Your task to perform on an android device: Go to Yahoo.com Image 0: 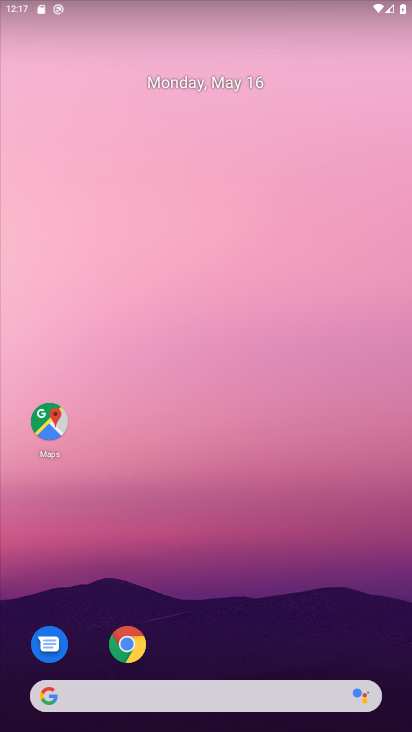
Step 0: click (141, 642)
Your task to perform on an android device: Go to Yahoo.com Image 1: 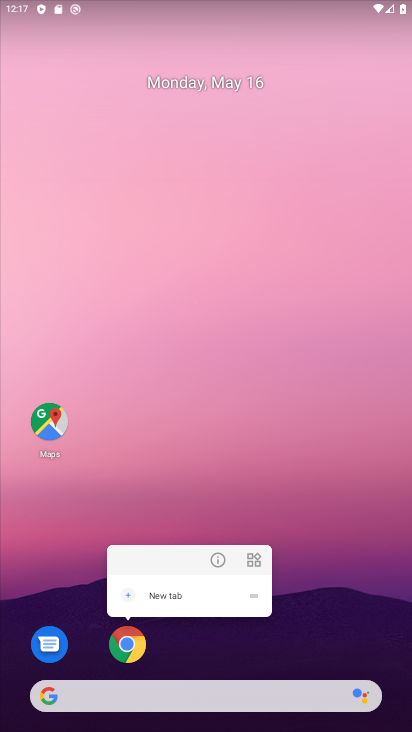
Step 1: click (118, 660)
Your task to perform on an android device: Go to Yahoo.com Image 2: 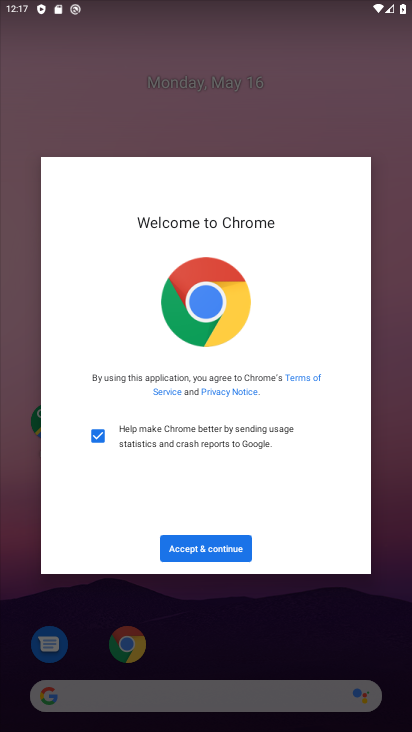
Step 2: click (216, 555)
Your task to perform on an android device: Go to Yahoo.com Image 3: 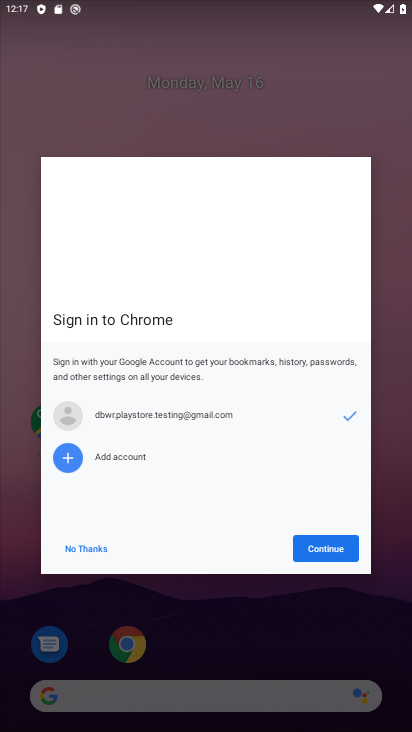
Step 3: click (321, 543)
Your task to perform on an android device: Go to Yahoo.com Image 4: 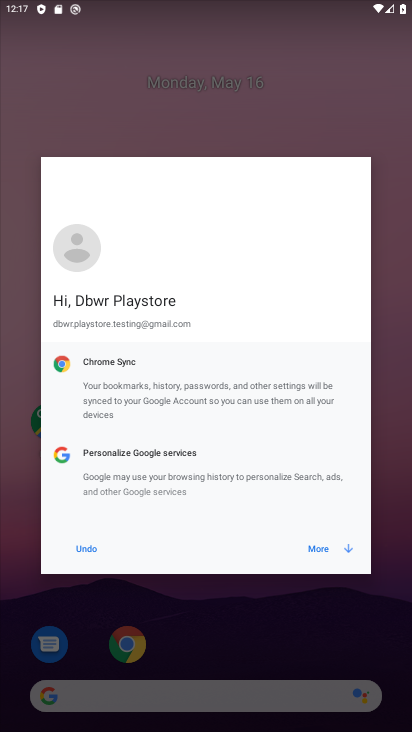
Step 4: click (321, 543)
Your task to perform on an android device: Go to Yahoo.com Image 5: 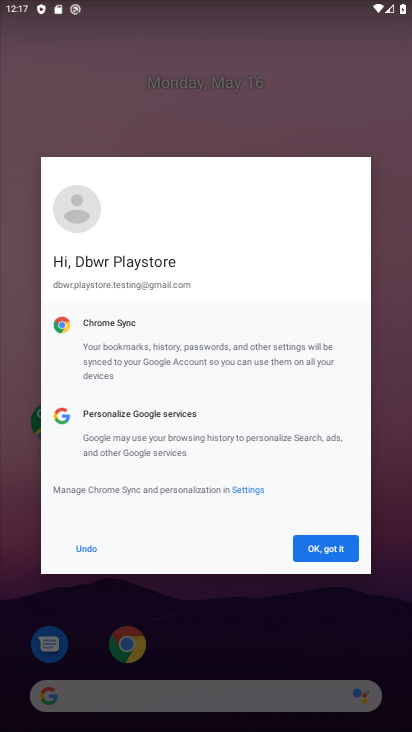
Step 5: click (321, 543)
Your task to perform on an android device: Go to Yahoo.com Image 6: 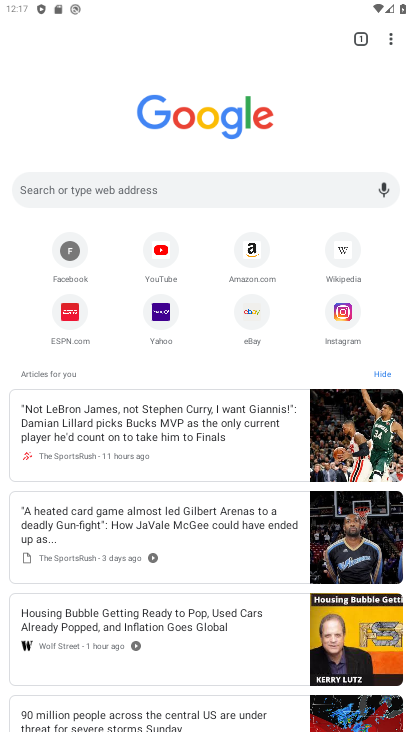
Step 6: click (164, 317)
Your task to perform on an android device: Go to Yahoo.com Image 7: 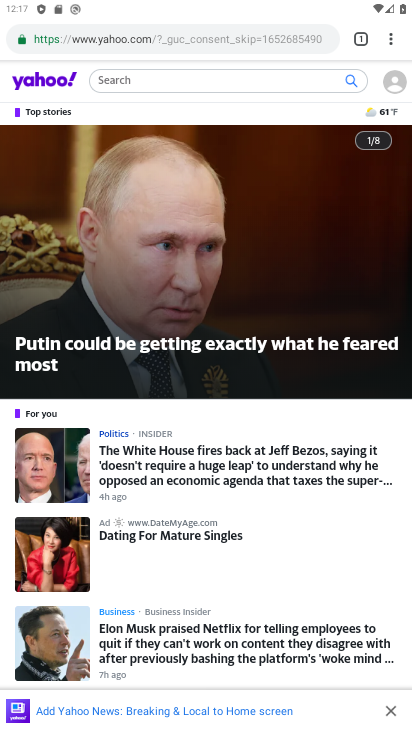
Step 7: task complete